Your task to perform on an android device: Open network settings Image 0: 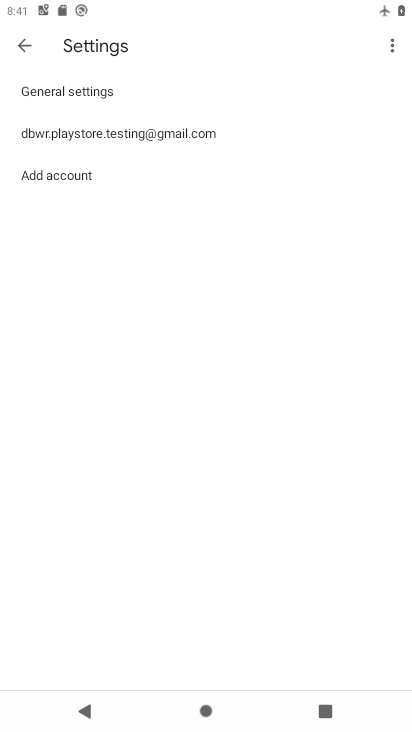
Step 0: press home button
Your task to perform on an android device: Open network settings Image 1: 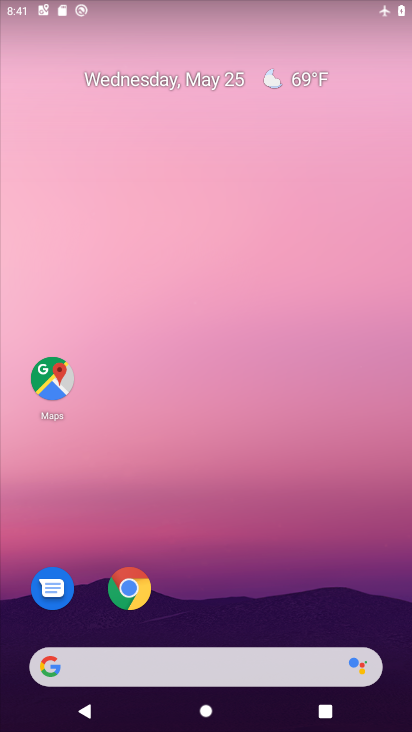
Step 1: drag from (349, 460) to (302, 161)
Your task to perform on an android device: Open network settings Image 2: 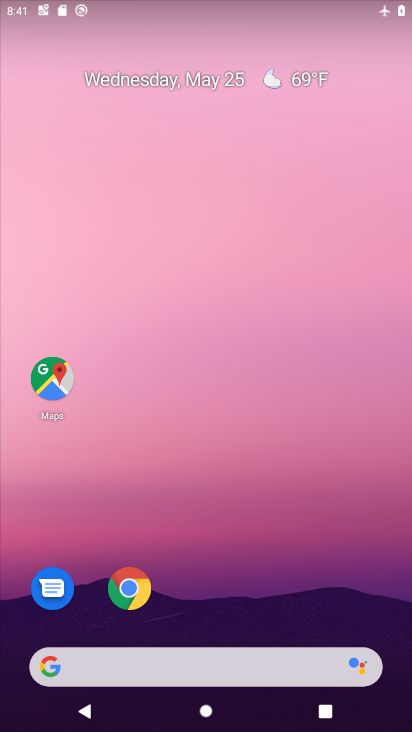
Step 2: drag from (357, 613) to (365, 141)
Your task to perform on an android device: Open network settings Image 3: 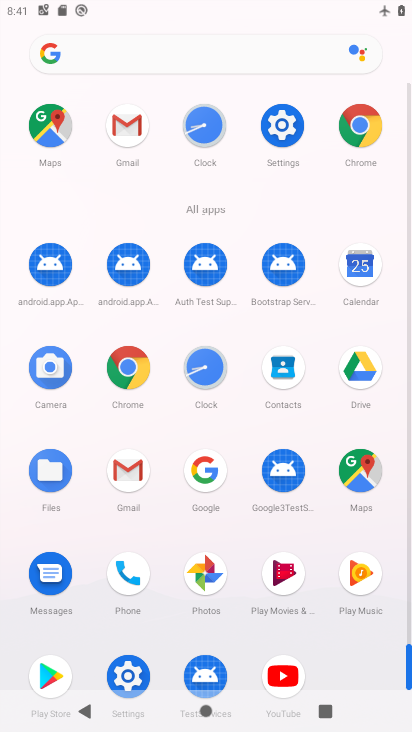
Step 3: click (265, 130)
Your task to perform on an android device: Open network settings Image 4: 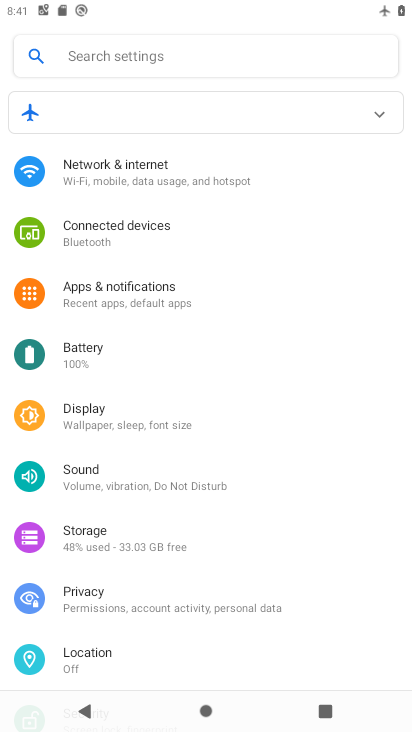
Step 4: click (259, 191)
Your task to perform on an android device: Open network settings Image 5: 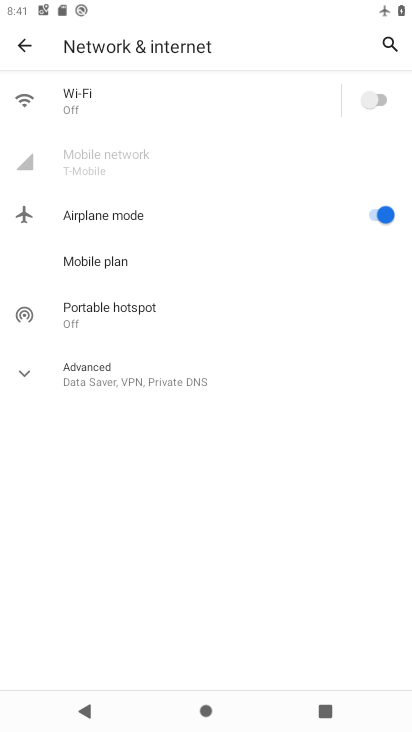
Step 5: task complete